Your task to perform on an android device: Open maps Image 0: 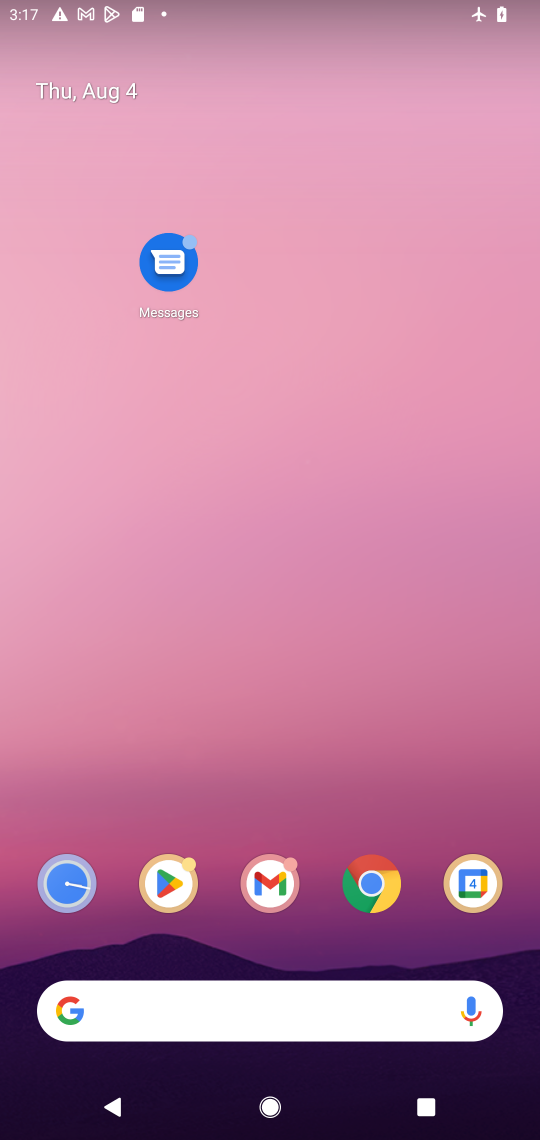
Step 0: drag from (330, 844) to (330, 96)
Your task to perform on an android device: Open maps Image 1: 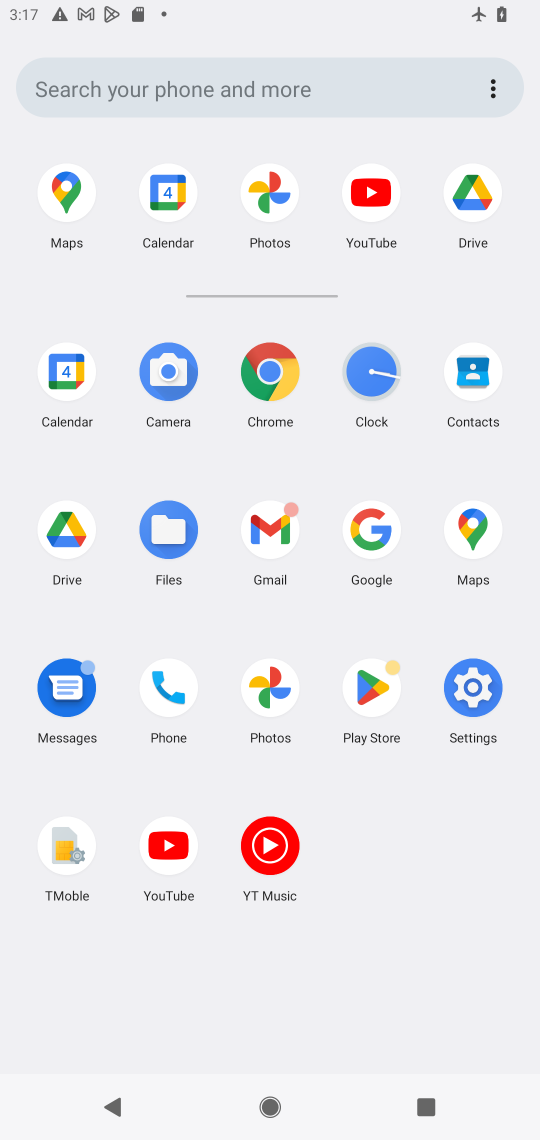
Step 1: click (66, 188)
Your task to perform on an android device: Open maps Image 2: 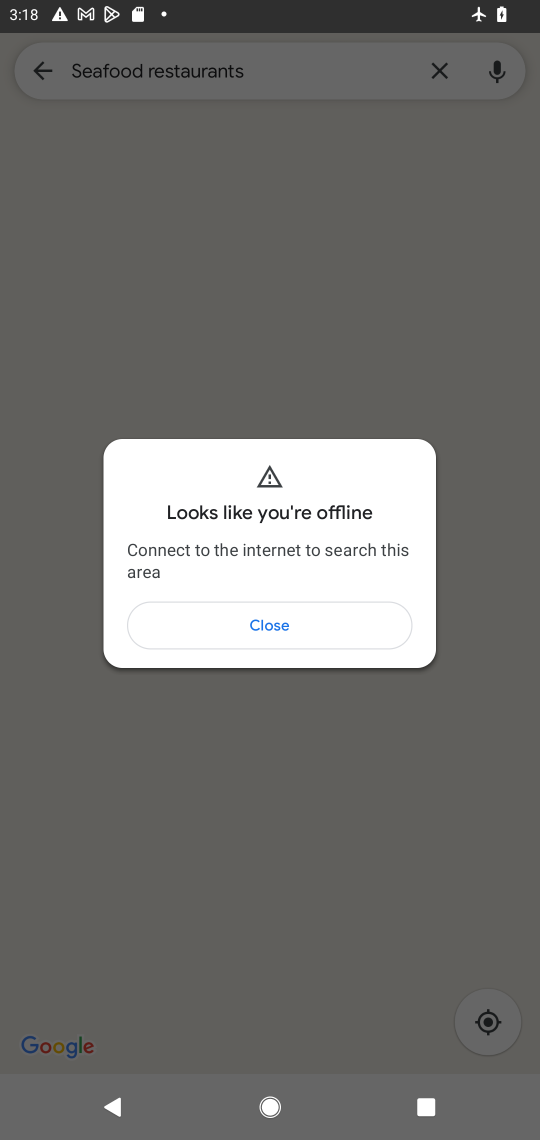
Step 2: click (270, 616)
Your task to perform on an android device: Open maps Image 3: 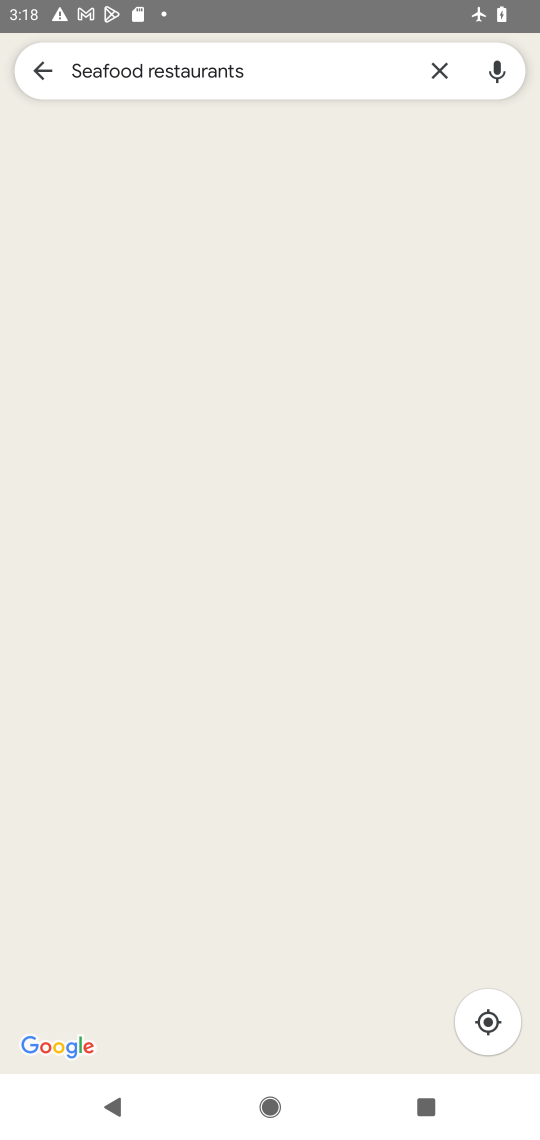
Step 3: task complete